Your task to perform on an android device: toggle priority inbox in the gmail app Image 0: 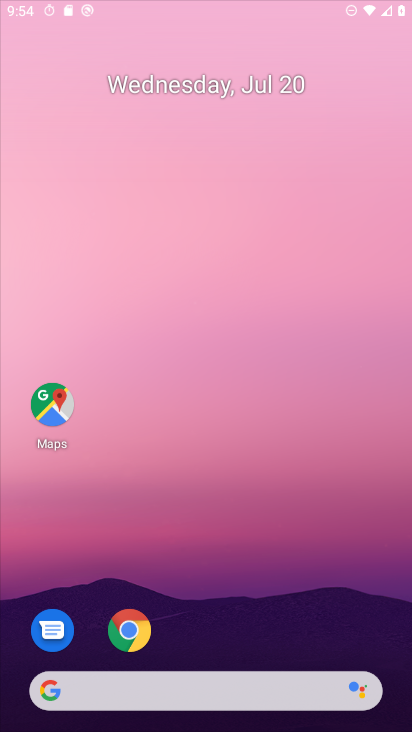
Step 0: click (360, 15)
Your task to perform on an android device: toggle priority inbox in the gmail app Image 1: 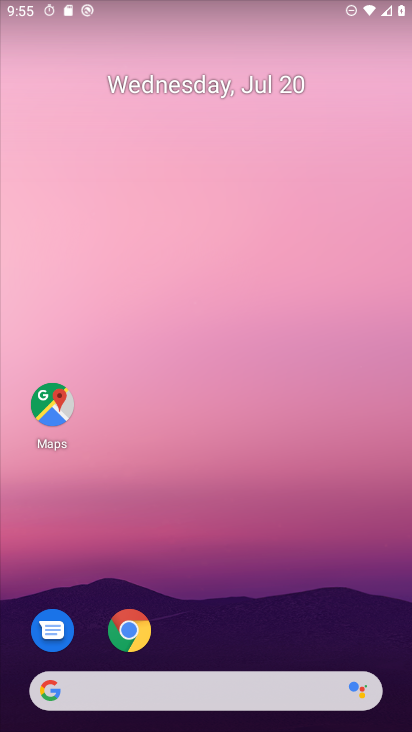
Step 1: drag from (175, 697) to (54, 249)
Your task to perform on an android device: toggle priority inbox in the gmail app Image 2: 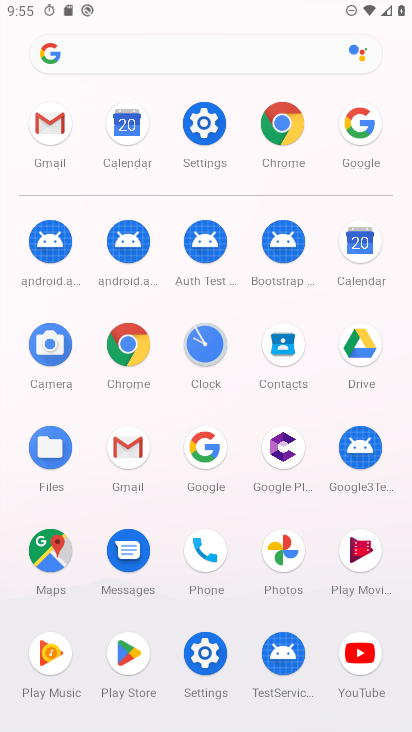
Step 2: click (140, 466)
Your task to perform on an android device: toggle priority inbox in the gmail app Image 3: 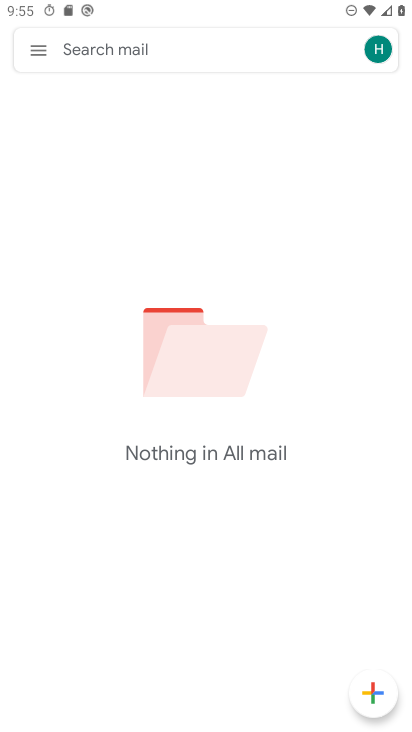
Step 3: click (38, 49)
Your task to perform on an android device: toggle priority inbox in the gmail app Image 4: 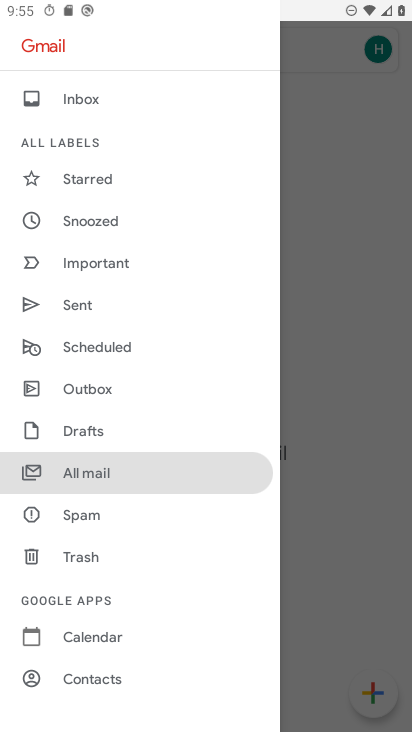
Step 4: drag from (134, 616) to (195, 111)
Your task to perform on an android device: toggle priority inbox in the gmail app Image 5: 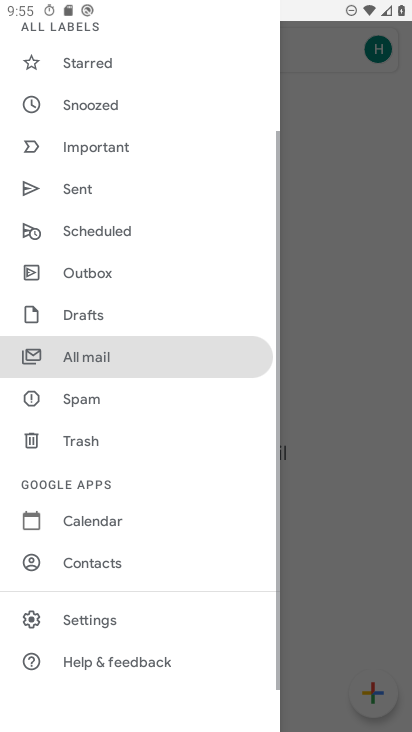
Step 5: click (79, 616)
Your task to perform on an android device: toggle priority inbox in the gmail app Image 6: 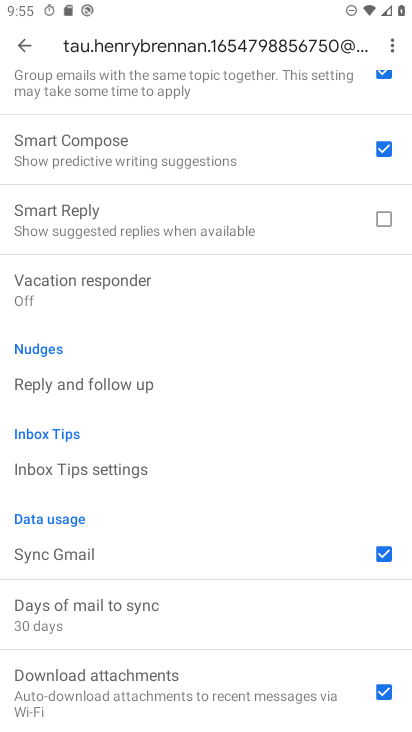
Step 6: drag from (113, 300) to (157, 728)
Your task to perform on an android device: toggle priority inbox in the gmail app Image 7: 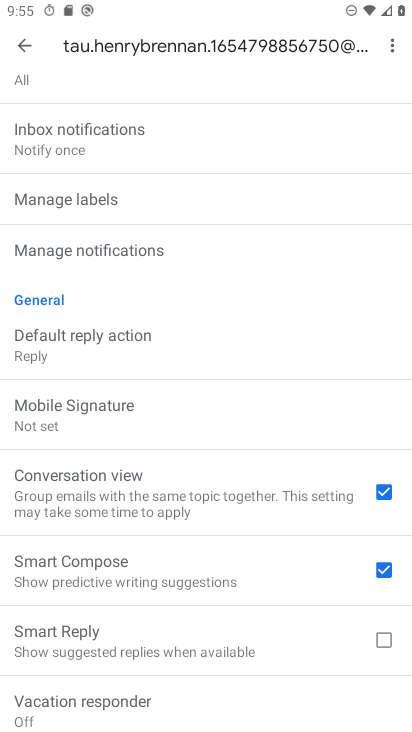
Step 7: drag from (171, 250) to (172, 728)
Your task to perform on an android device: toggle priority inbox in the gmail app Image 8: 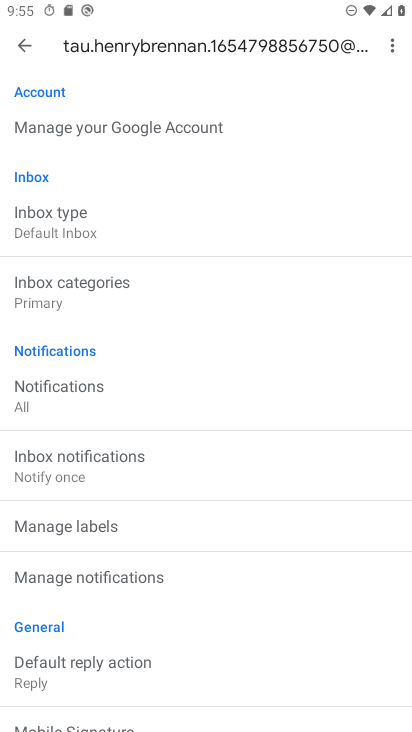
Step 8: drag from (74, 227) to (99, 682)
Your task to perform on an android device: toggle priority inbox in the gmail app Image 9: 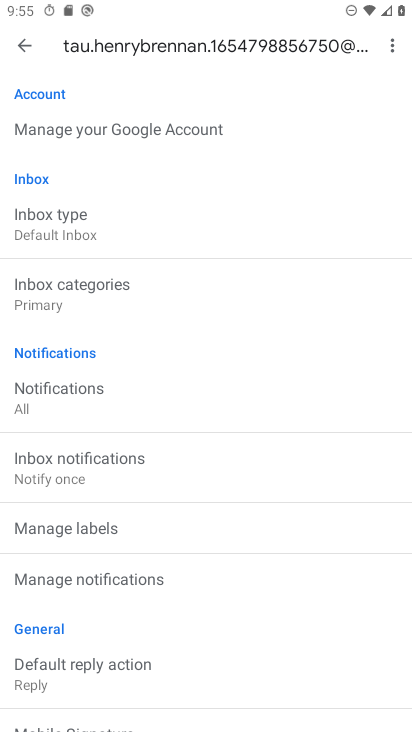
Step 9: click (78, 224)
Your task to perform on an android device: toggle priority inbox in the gmail app Image 10: 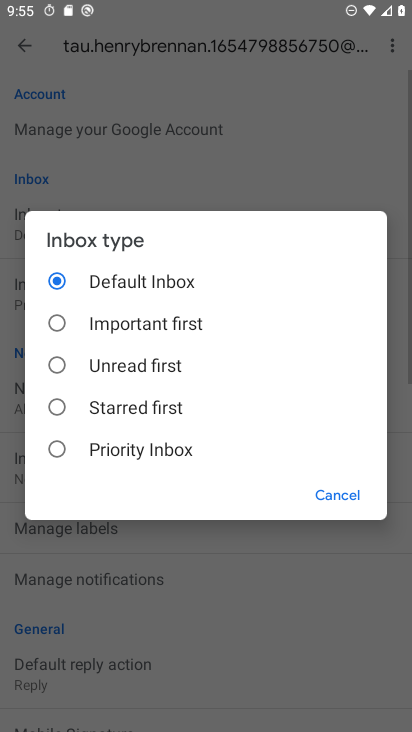
Step 10: click (111, 446)
Your task to perform on an android device: toggle priority inbox in the gmail app Image 11: 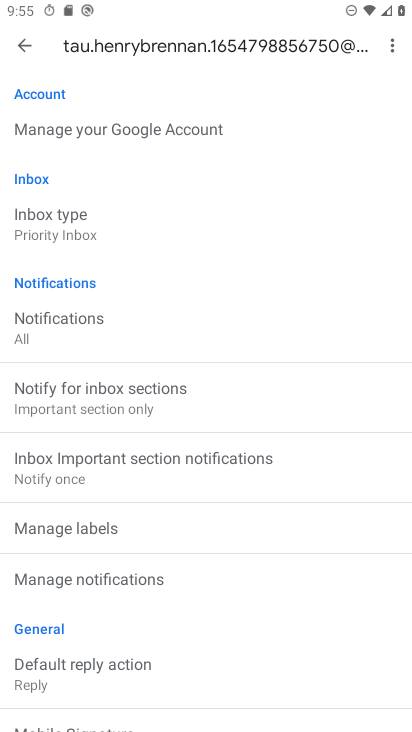
Step 11: task complete